Your task to perform on an android device: turn on data saver in the chrome app Image 0: 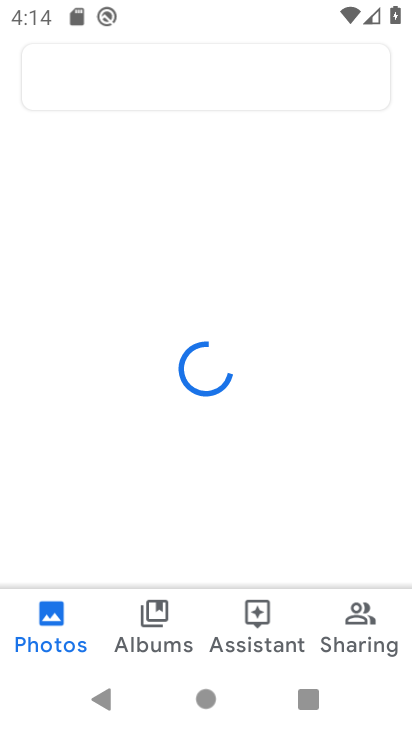
Step 0: press home button
Your task to perform on an android device: turn on data saver in the chrome app Image 1: 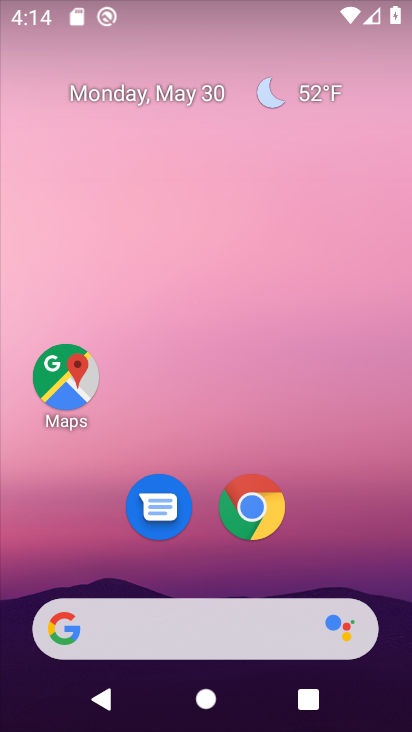
Step 1: click (215, 503)
Your task to perform on an android device: turn on data saver in the chrome app Image 2: 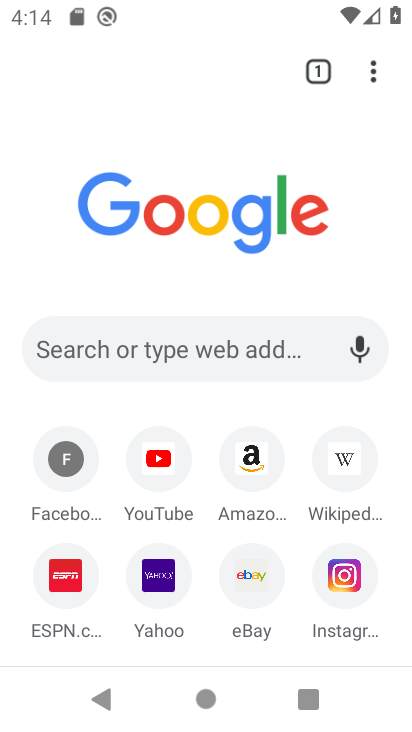
Step 2: drag from (382, 82) to (246, 489)
Your task to perform on an android device: turn on data saver in the chrome app Image 3: 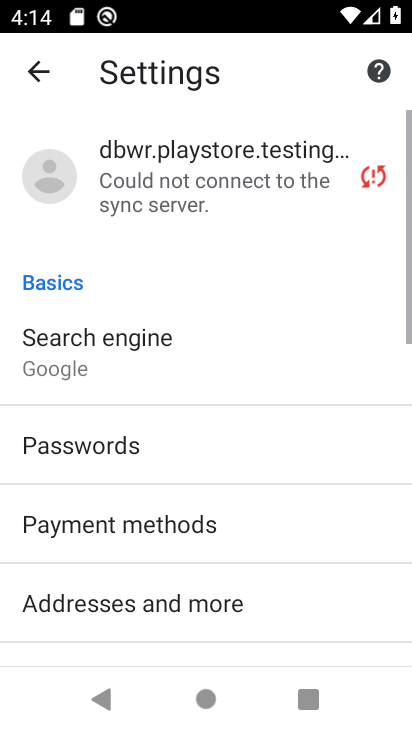
Step 3: drag from (240, 524) to (262, 4)
Your task to perform on an android device: turn on data saver in the chrome app Image 4: 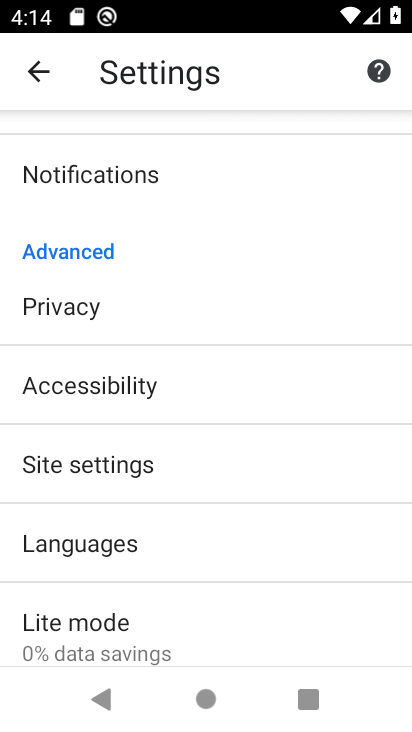
Step 4: drag from (190, 604) to (212, 366)
Your task to perform on an android device: turn on data saver in the chrome app Image 5: 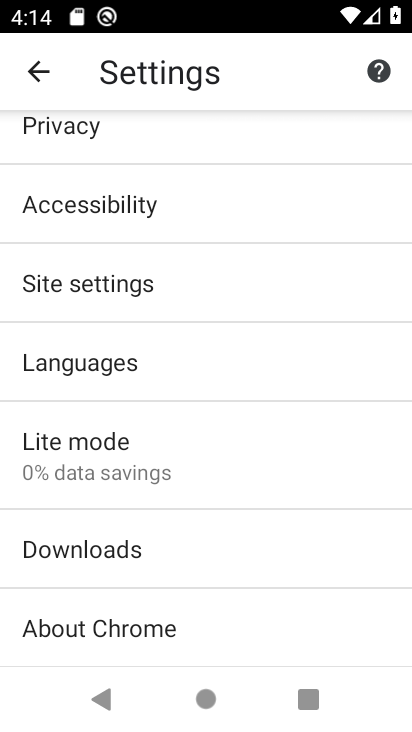
Step 5: click (182, 459)
Your task to perform on an android device: turn on data saver in the chrome app Image 6: 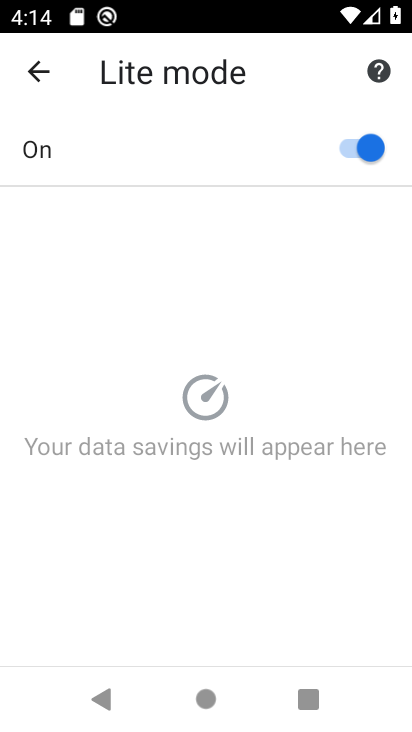
Step 6: task complete